Your task to perform on an android device: Open display settings Image 0: 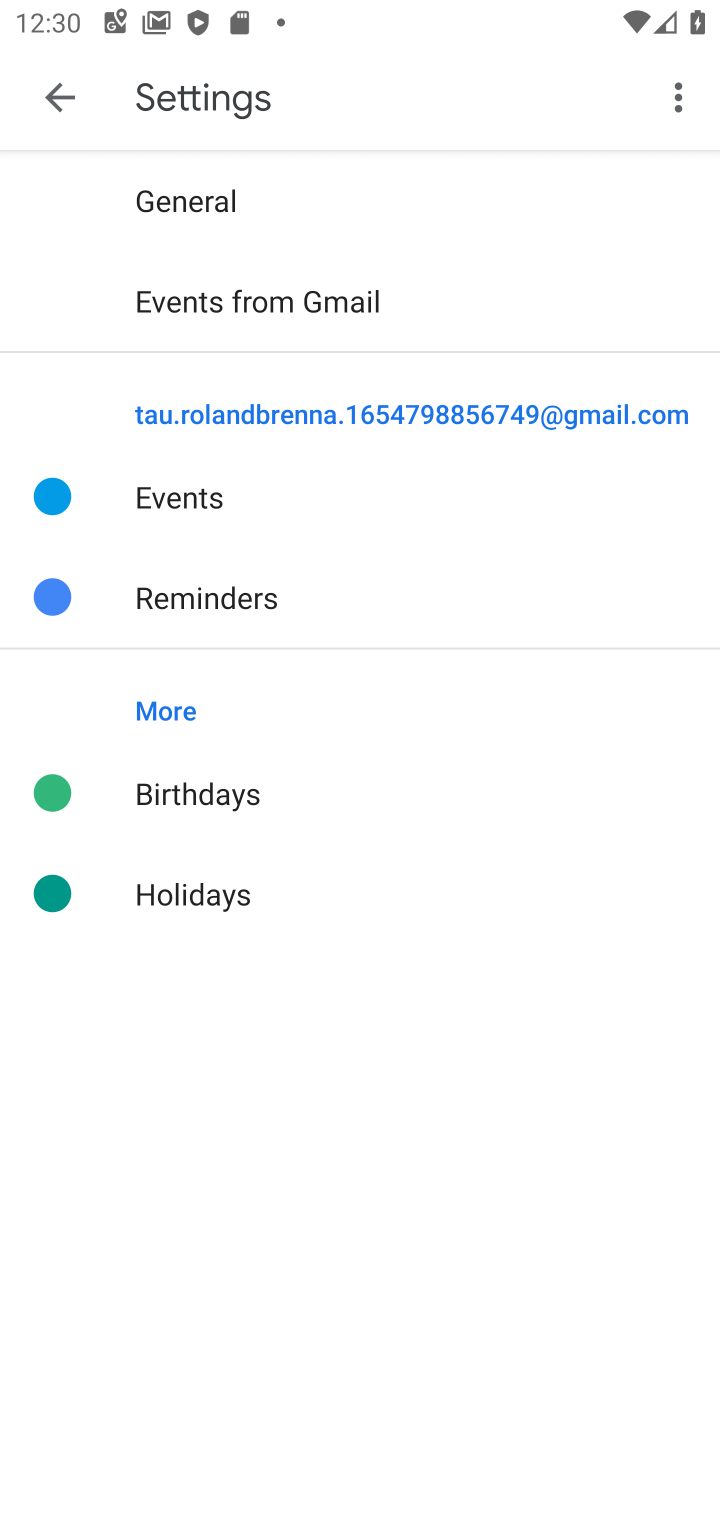
Step 0: press home button
Your task to perform on an android device: Open display settings Image 1: 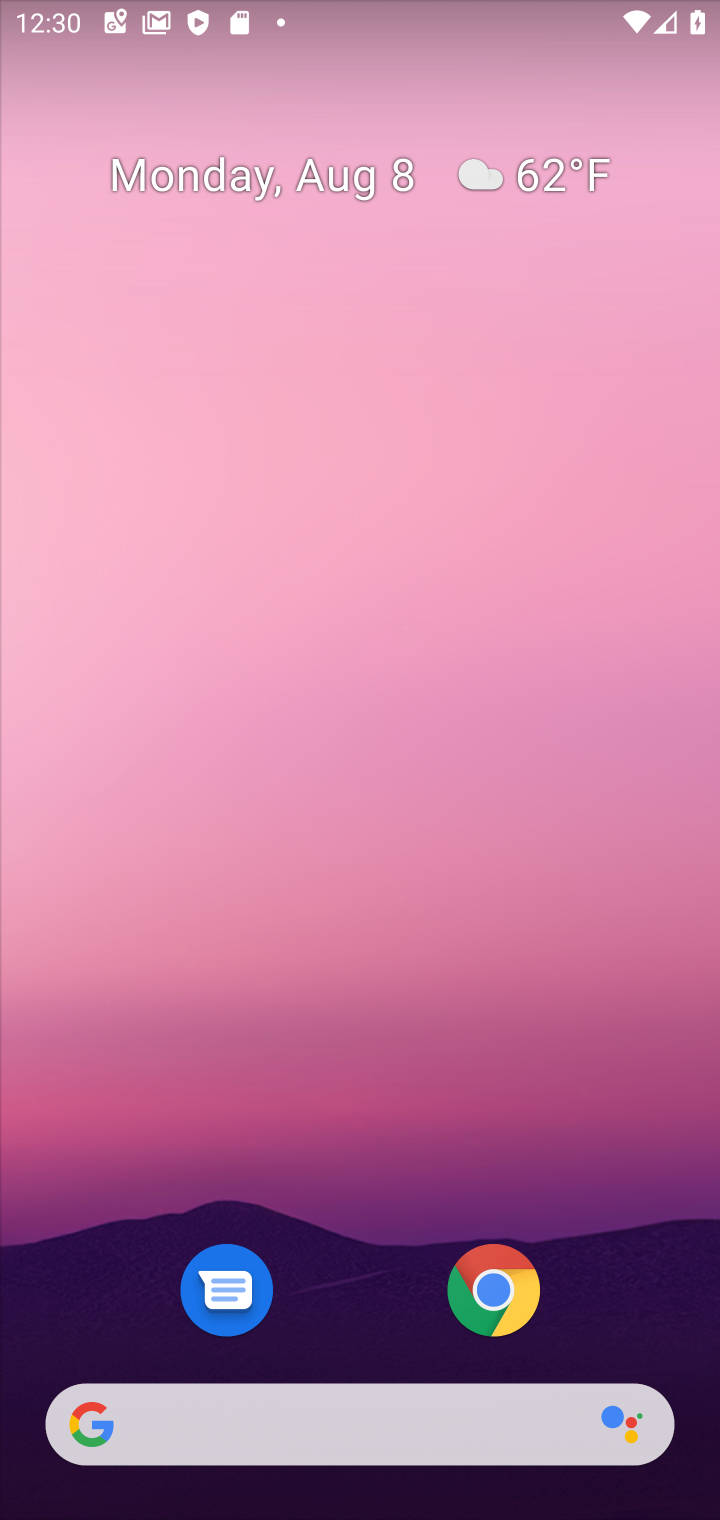
Step 1: click (266, 109)
Your task to perform on an android device: Open display settings Image 2: 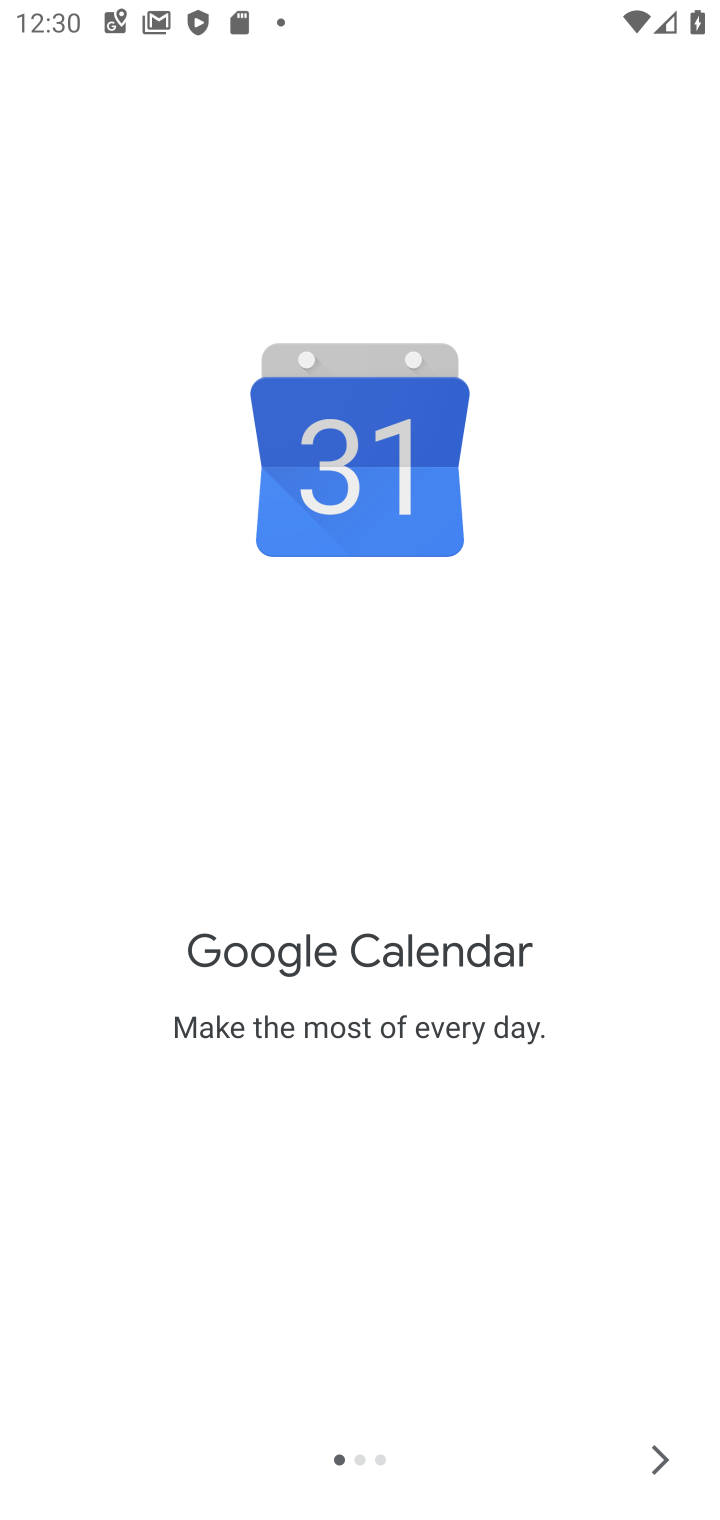
Step 2: press home button
Your task to perform on an android device: Open display settings Image 3: 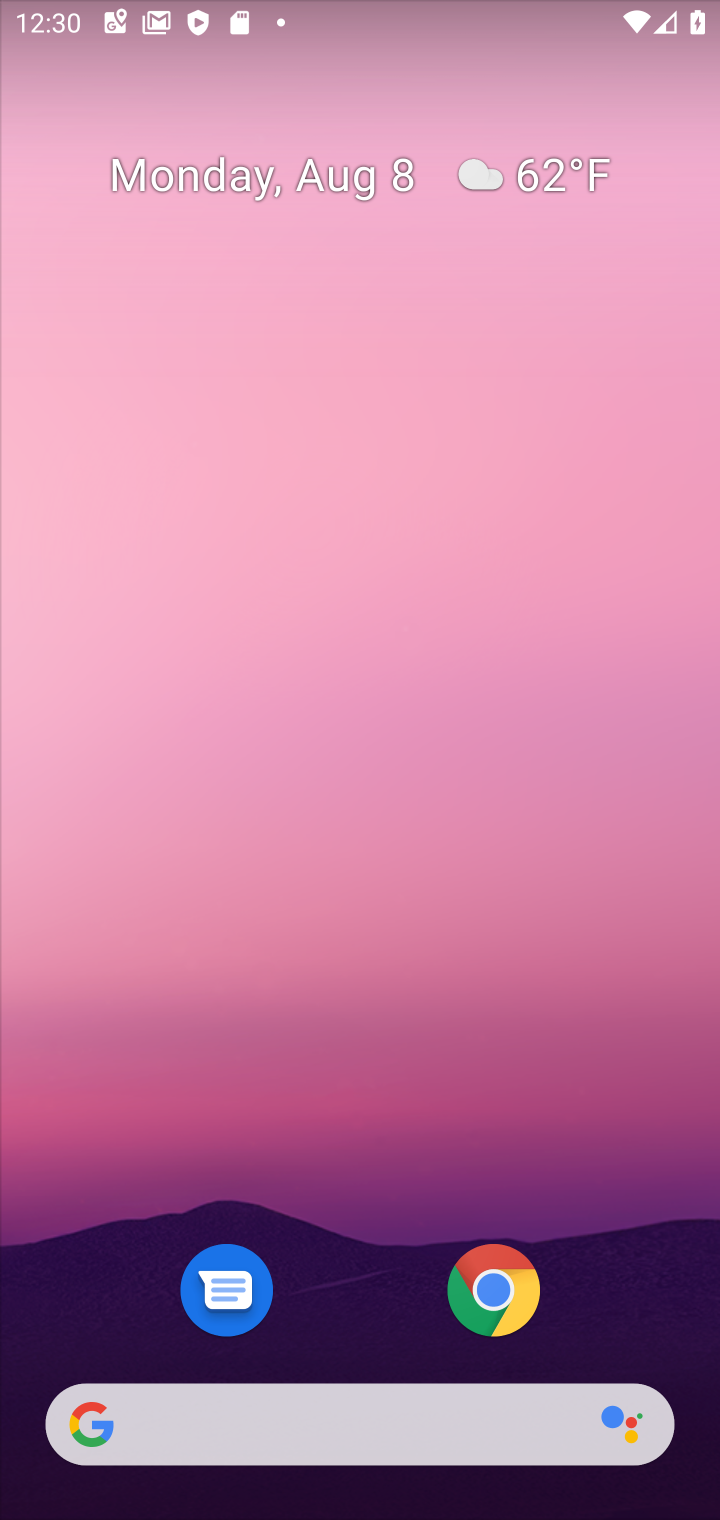
Step 3: drag from (361, 1277) to (453, 349)
Your task to perform on an android device: Open display settings Image 4: 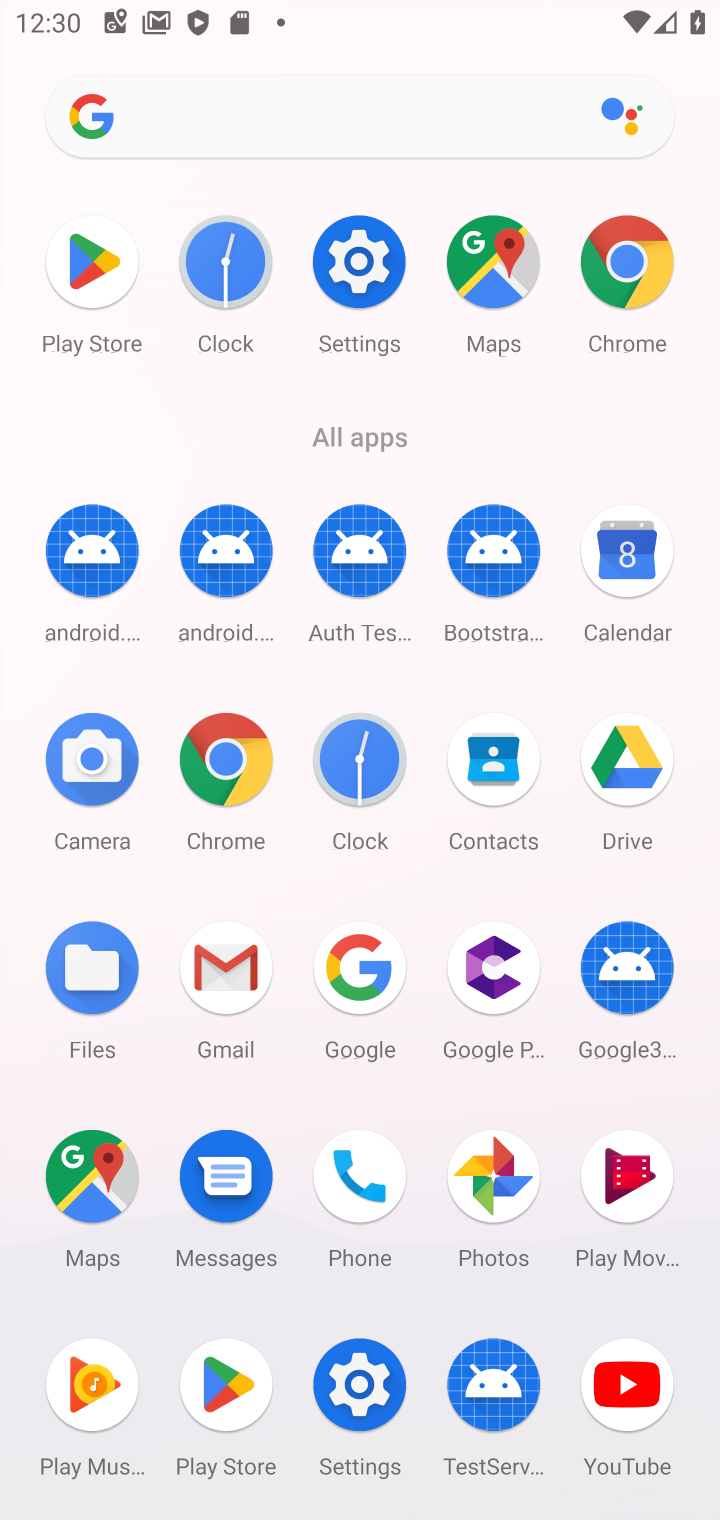
Step 4: click (372, 1387)
Your task to perform on an android device: Open display settings Image 5: 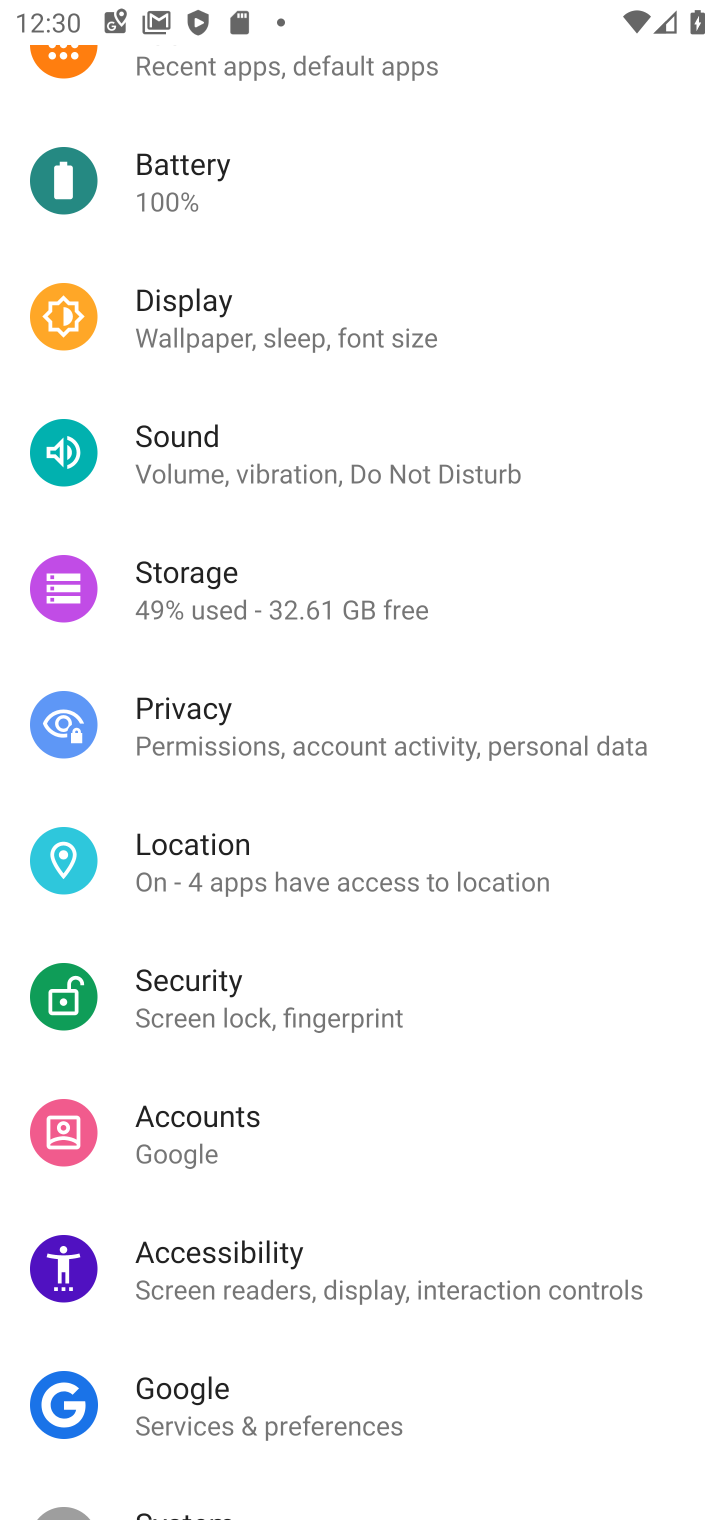
Step 5: click (283, 316)
Your task to perform on an android device: Open display settings Image 6: 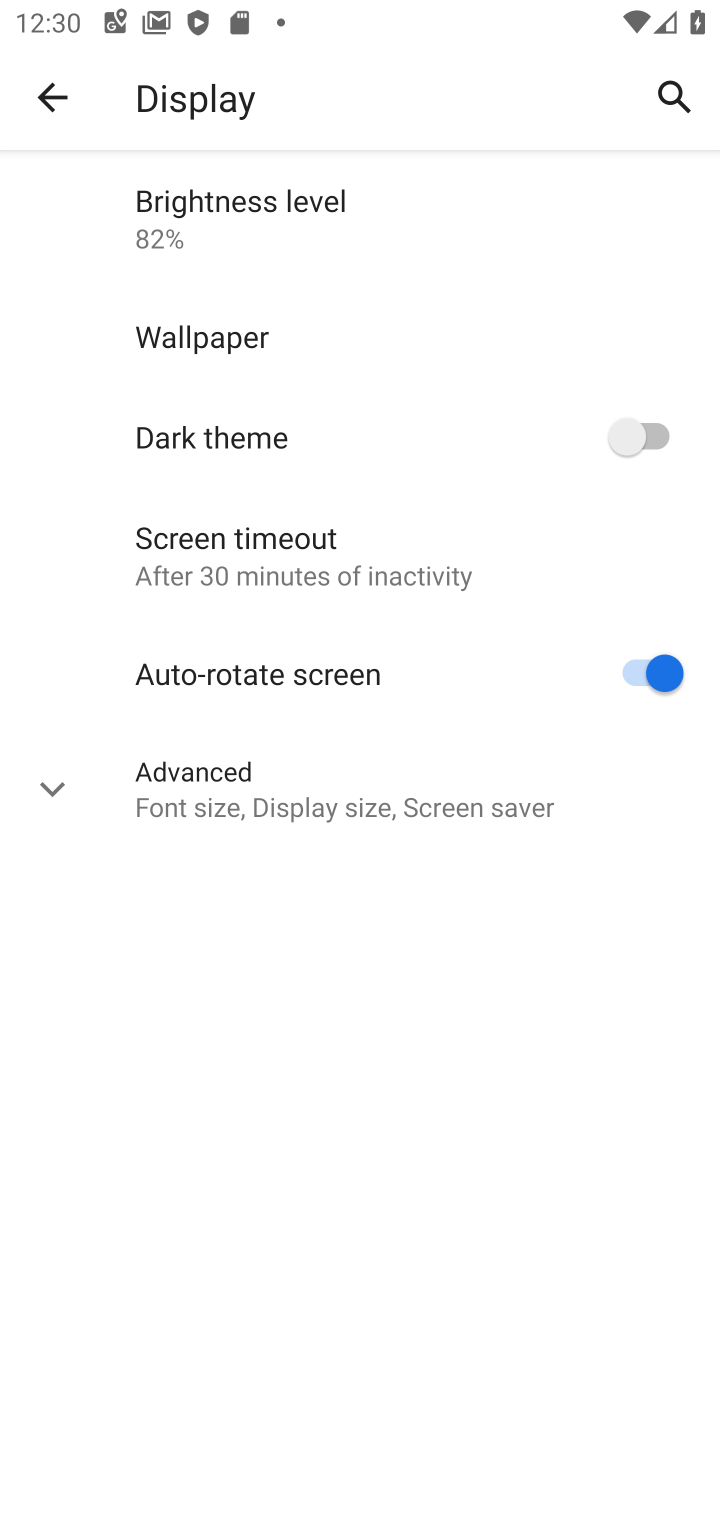
Step 6: click (363, 816)
Your task to perform on an android device: Open display settings Image 7: 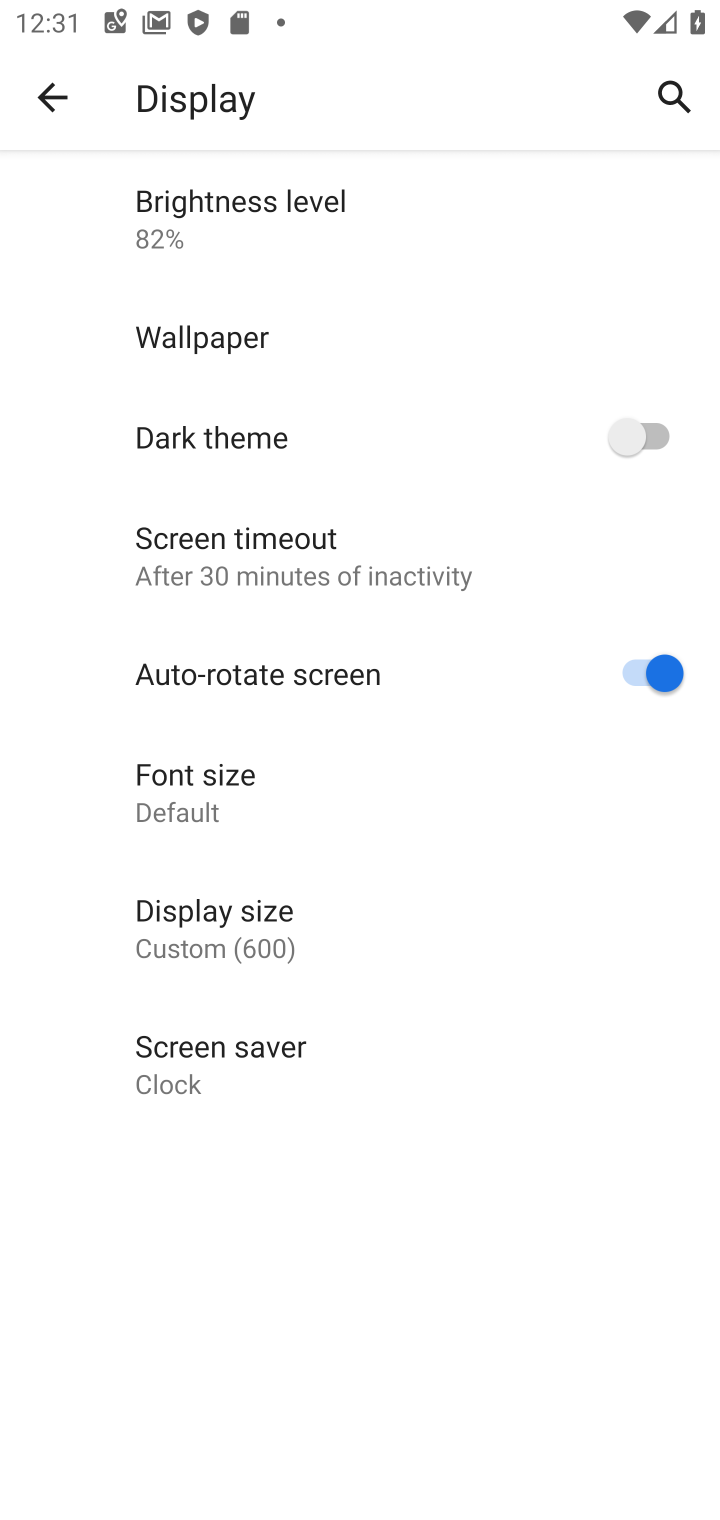
Step 7: task complete